Your task to perform on an android device: check data usage Image 0: 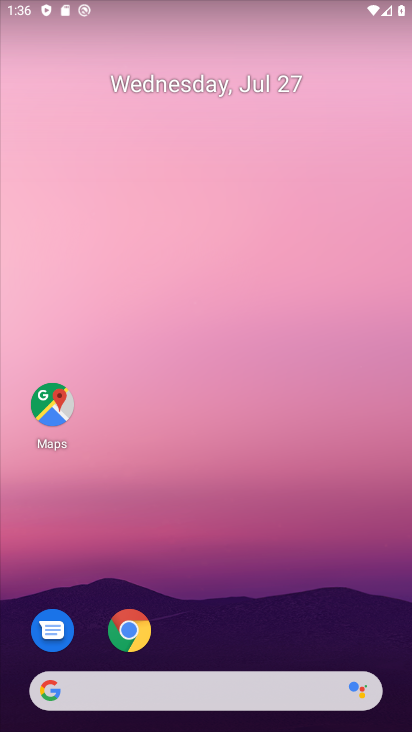
Step 0: drag from (309, 619) to (244, 143)
Your task to perform on an android device: check data usage Image 1: 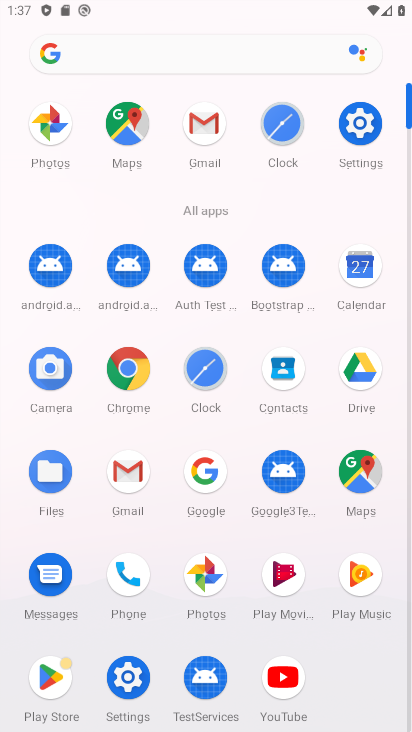
Step 1: drag from (261, 2) to (320, 557)
Your task to perform on an android device: check data usage Image 2: 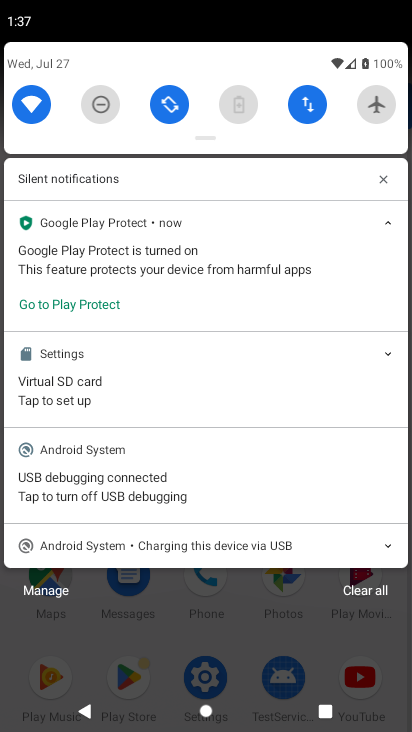
Step 2: click (312, 97)
Your task to perform on an android device: check data usage Image 3: 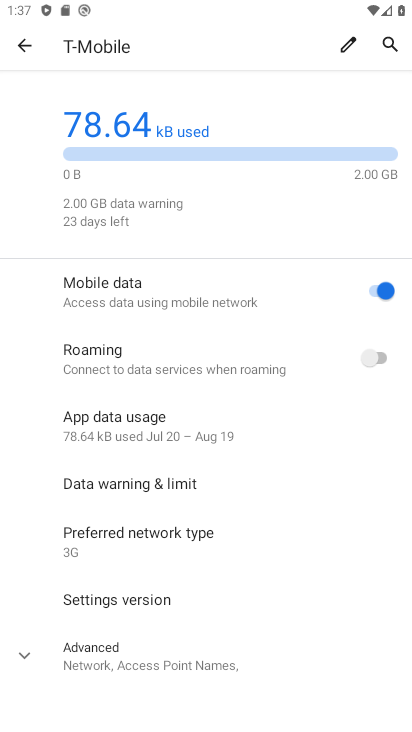
Step 3: task complete